Your task to perform on an android device: turn vacation reply on in the gmail app Image 0: 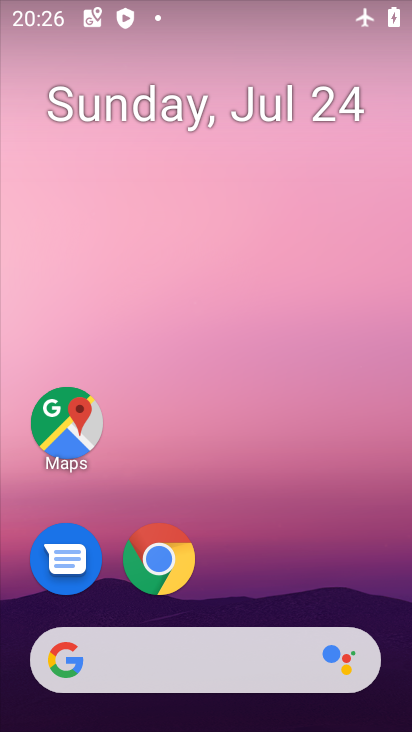
Step 0: drag from (369, 547) to (370, 129)
Your task to perform on an android device: turn vacation reply on in the gmail app Image 1: 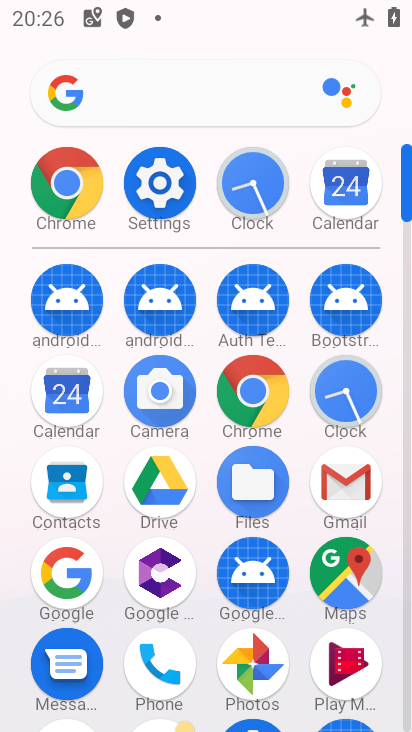
Step 1: click (343, 477)
Your task to perform on an android device: turn vacation reply on in the gmail app Image 2: 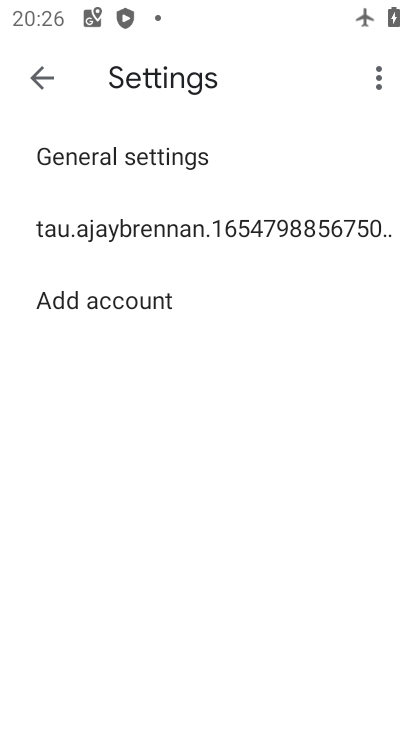
Step 2: click (287, 224)
Your task to perform on an android device: turn vacation reply on in the gmail app Image 3: 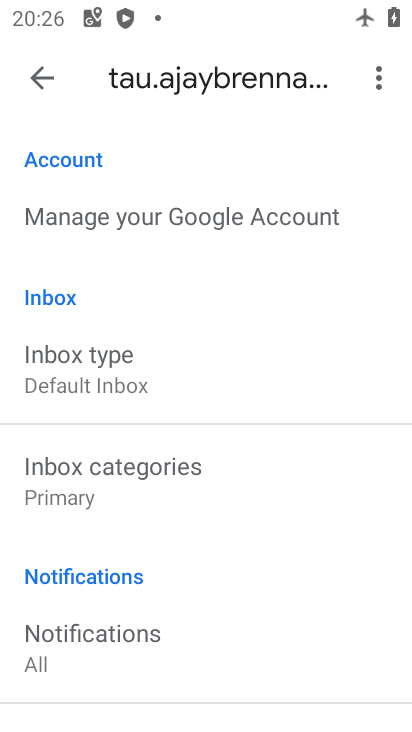
Step 3: drag from (325, 543) to (335, 389)
Your task to perform on an android device: turn vacation reply on in the gmail app Image 4: 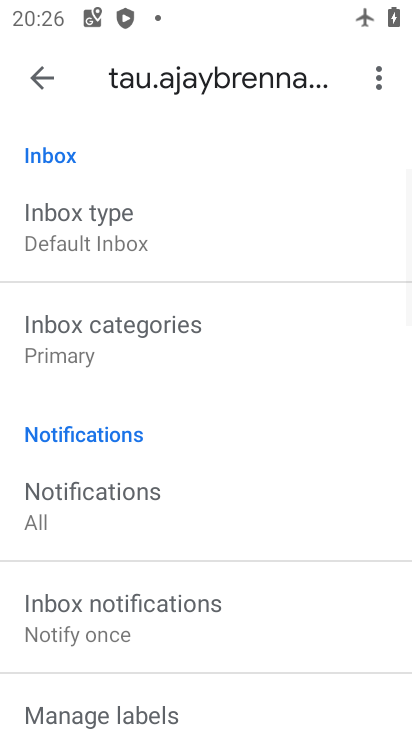
Step 4: drag from (315, 551) to (321, 413)
Your task to perform on an android device: turn vacation reply on in the gmail app Image 5: 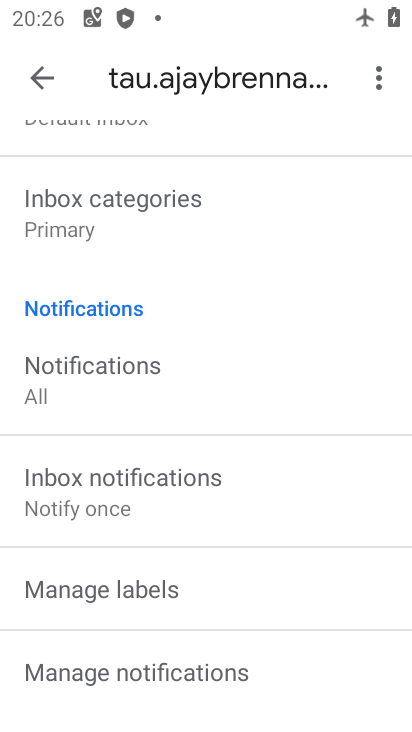
Step 5: drag from (313, 535) to (308, 409)
Your task to perform on an android device: turn vacation reply on in the gmail app Image 6: 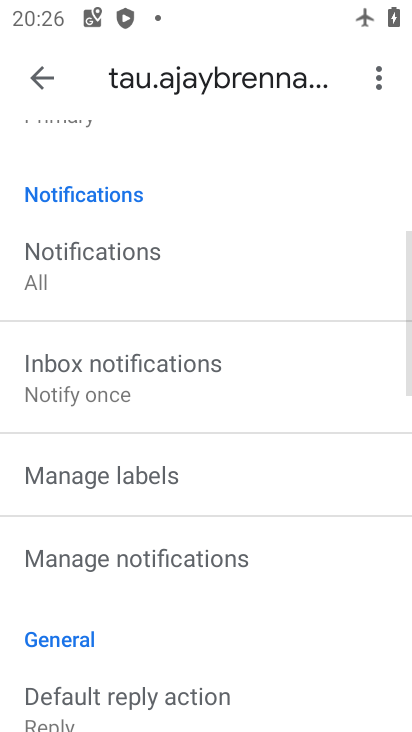
Step 6: drag from (294, 606) to (299, 433)
Your task to perform on an android device: turn vacation reply on in the gmail app Image 7: 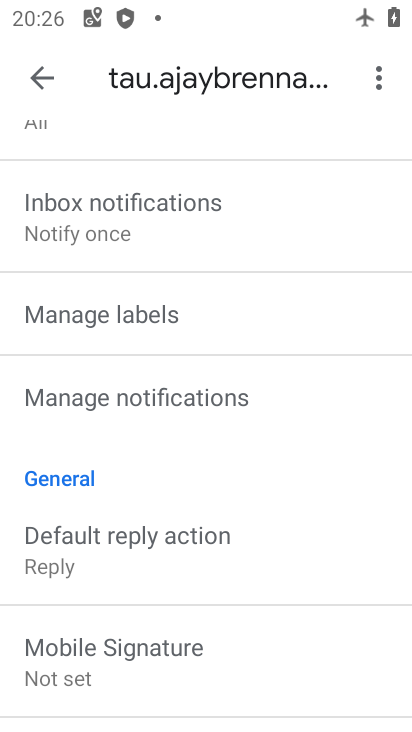
Step 7: drag from (308, 536) to (320, 454)
Your task to perform on an android device: turn vacation reply on in the gmail app Image 8: 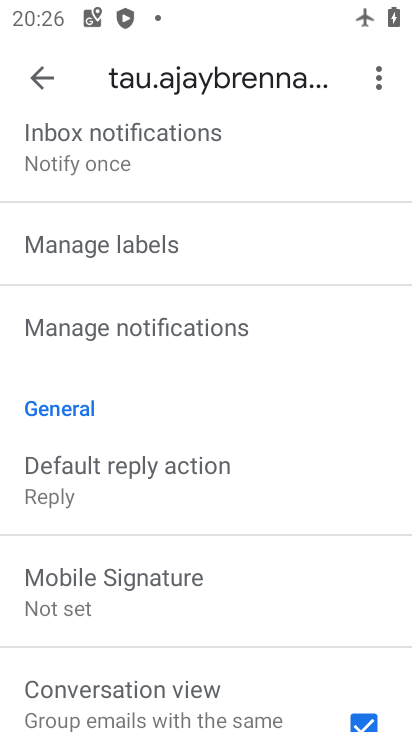
Step 8: drag from (311, 547) to (315, 429)
Your task to perform on an android device: turn vacation reply on in the gmail app Image 9: 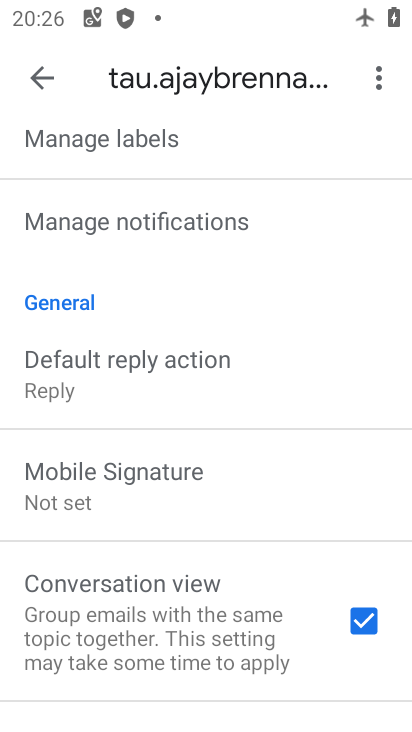
Step 9: drag from (321, 627) to (319, 359)
Your task to perform on an android device: turn vacation reply on in the gmail app Image 10: 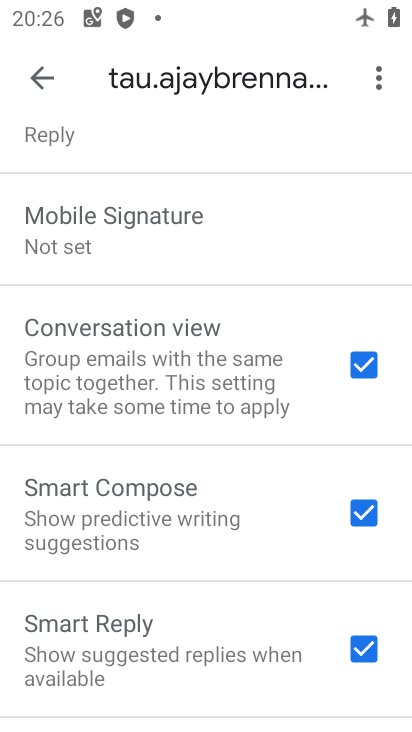
Step 10: drag from (277, 633) to (296, 411)
Your task to perform on an android device: turn vacation reply on in the gmail app Image 11: 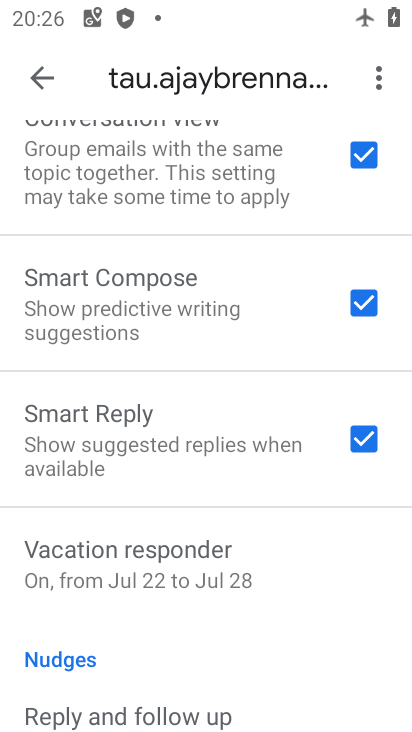
Step 11: click (279, 577)
Your task to perform on an android device: turn vacation reply on in the gmail app Image 12: 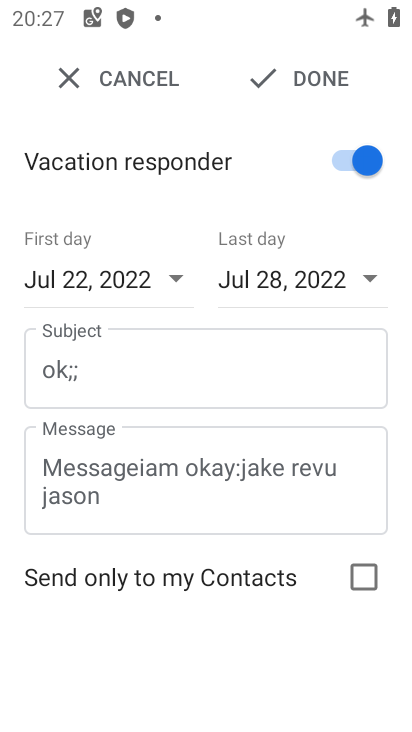
Step 12: task complete